Your task to perform on an android device: turn on javascript in the chrome app Image 0: 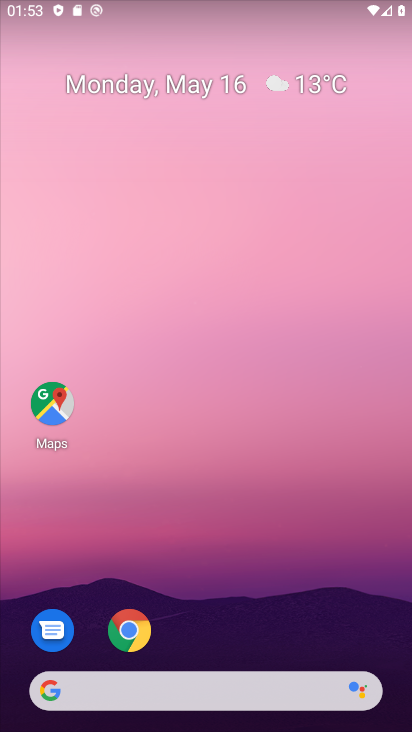
Step 0: drag from (316, 469) to (291, 229)
Your task to perform on an android device: turn on javascript in the chrome app Image 1: 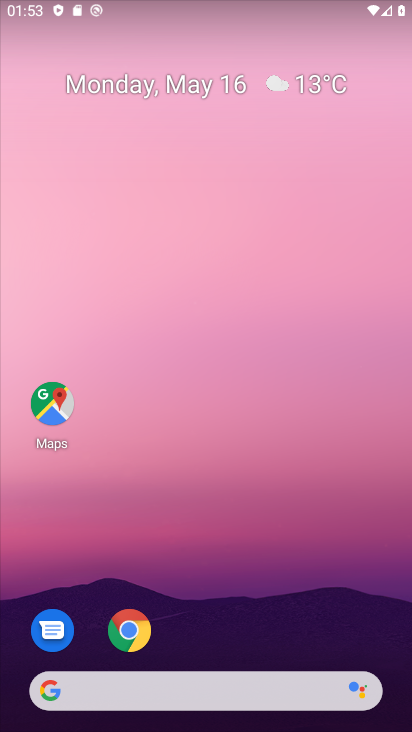
Step 1: drag from (348, 605) to (322, 261)
Your task to perform on an android device: turn on javascript in the chrome app Image 2: 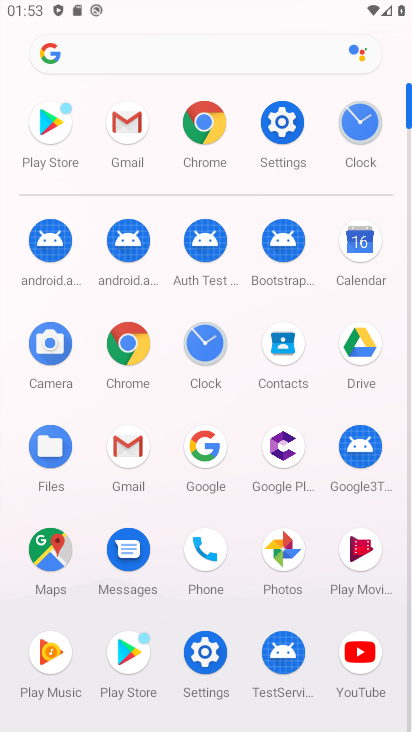
Step 2: click (118, 352)
Your task to perform on an android device: turn on javascript in the chrome app Image 3: 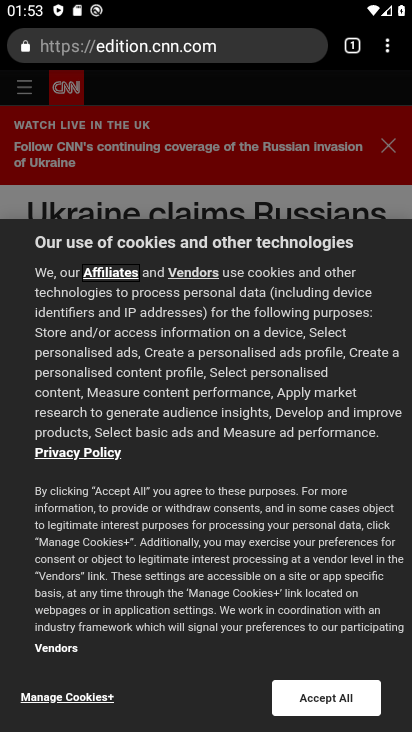
Step 3: drag from (395, 53) to (225, 565)
Your task to perform on an android device: turn on javascript in the chrome app Image 4: 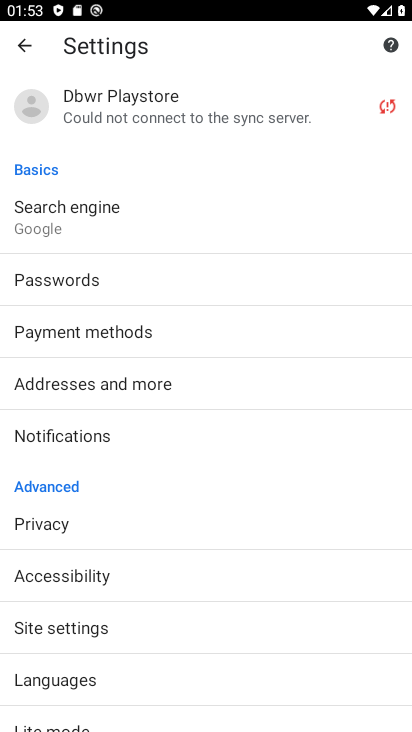
Step 4: drag from (141, 650) to (192, 406)
Your task to perform on an android device: turn on javascript in the chrome app Image 5: 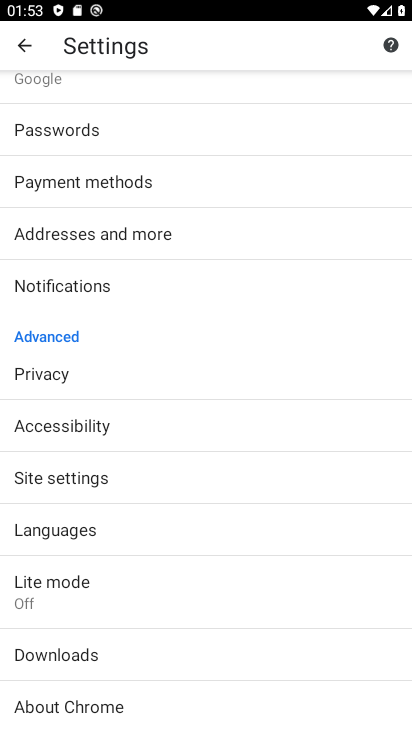
Step 5: click (129, 476)
Your task to perform on an android device: turn on javascript in the chrome app Image 6: 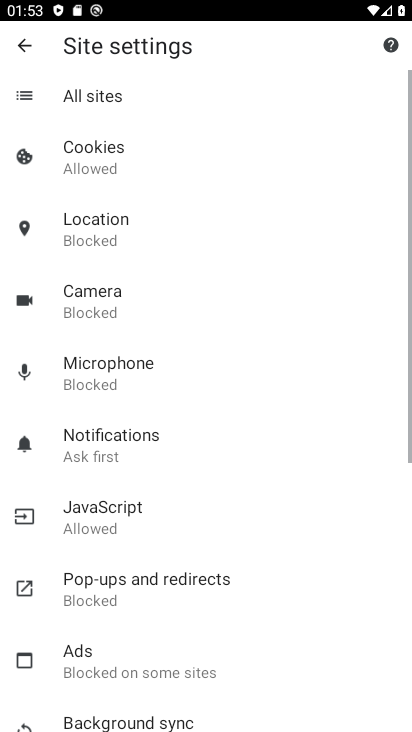
Step 6: click (138, 514)
Your task to perform on an android device: turn on javascript in the chrome app Image 7: 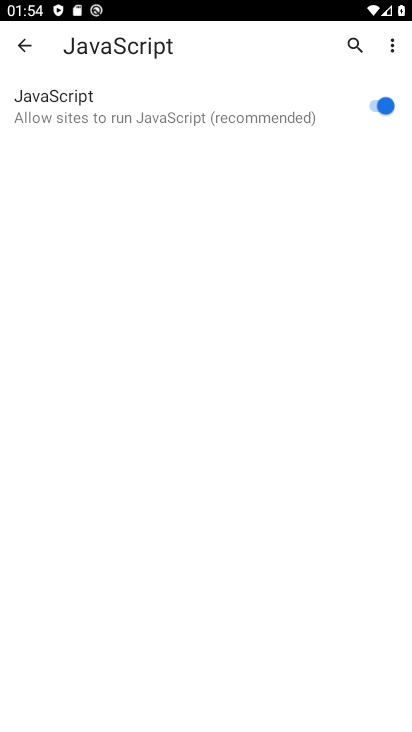
Step 7: task complete